Your task to perform on an android device: Go to accessibility settings Image 0: 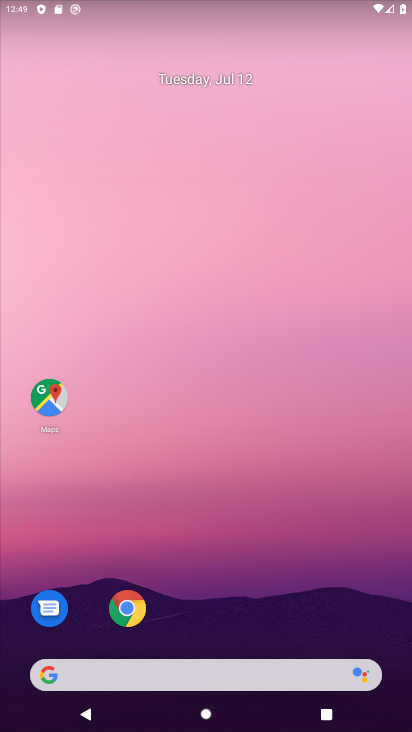
Step 0: drag from (322, 529) to (232, 0)
Your task to perform on an android device: Go to accessibility settings Image 1: 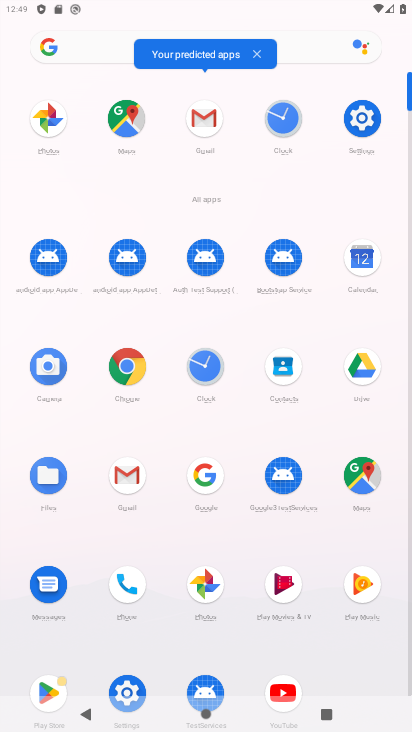
Step 1: click (357, 125)
Your task to perform on an android device: Go to accessibility settings Image 2: 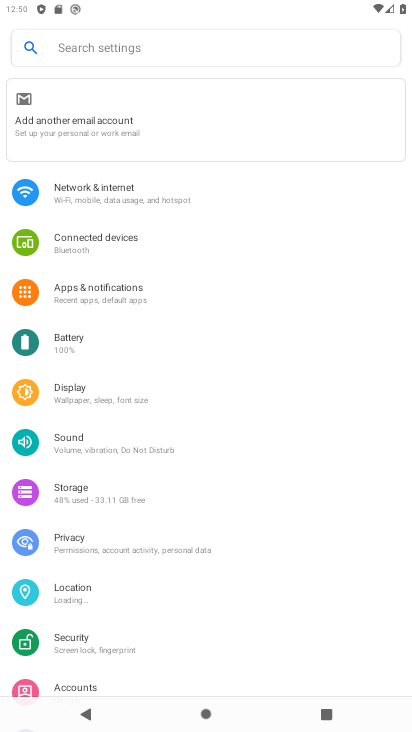
Step 2: drag from (103, 623) to (130, 218)
Your task to perform on an android device: Go to accessibility settings Image 3: 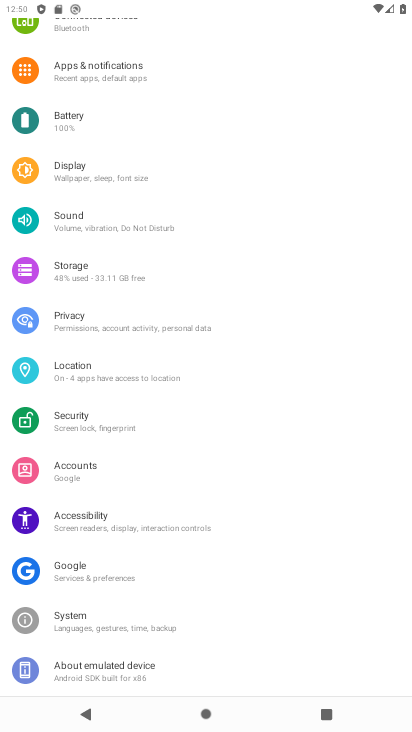
Step 3: click (133, 524)
Your task to perform on an android device: Go to accessibility settings Image 4: 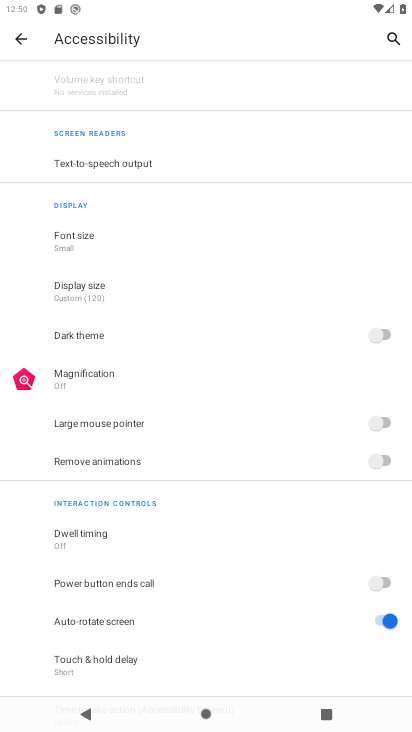
Step 4: task complete